Your task to perform on an android device: Go to Amazon Image 0: 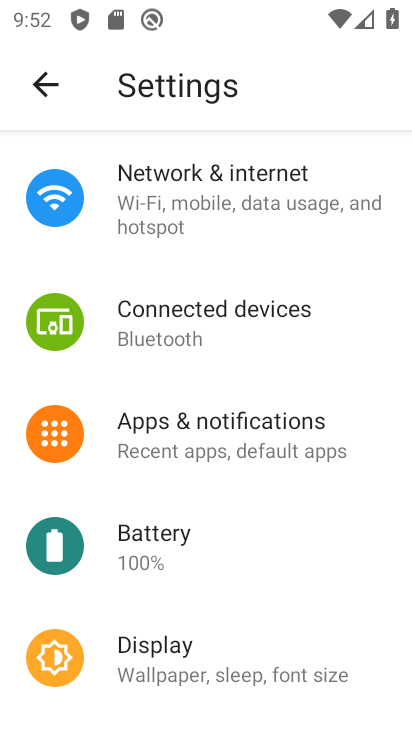
Step 0: press home button
Your task to perform on an android device: Go to Amazon Image 1: 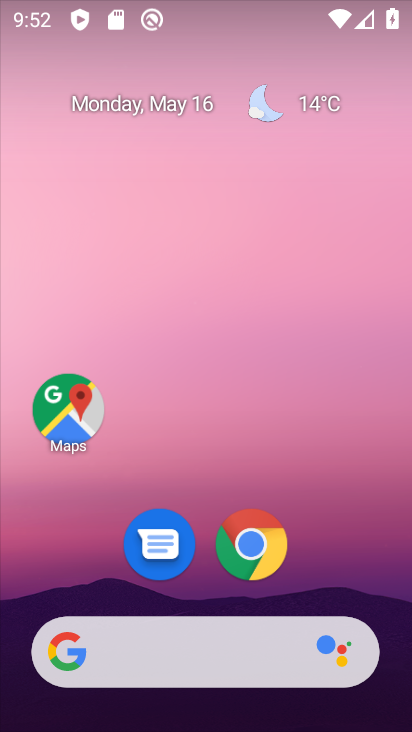
Step 1: click (271, 554)
Your task to perform on an android device: Go to Amazon Image 2: 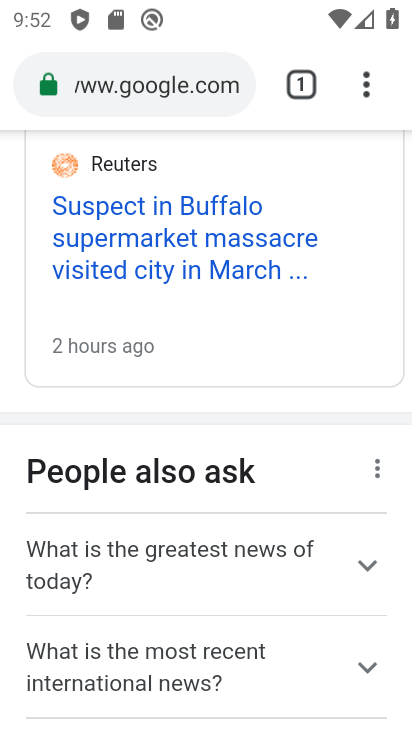
Step 2: click (186, 87)
Your task to perform on an android device: Go to Amazon Image 3: 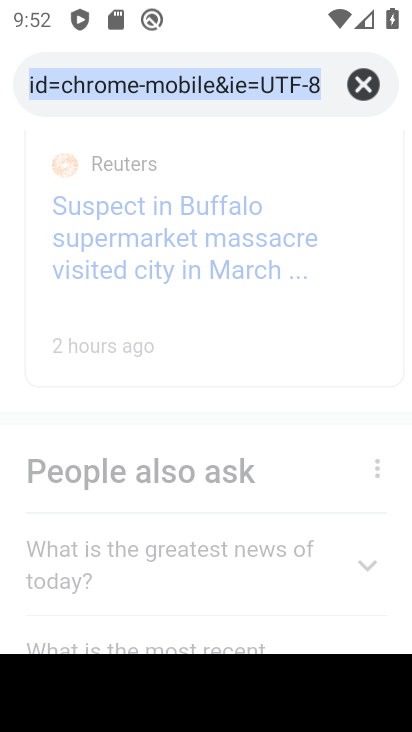
Step 3: type "Amazon"
Your task to perform on an android device: Go to Amazon Image 4: 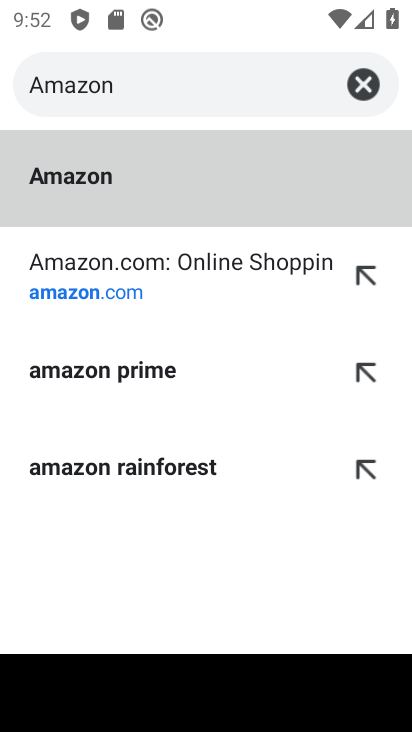
Step 4: click (70, 262)
Your task to perform on an android device: Go to Amazon Image 5: 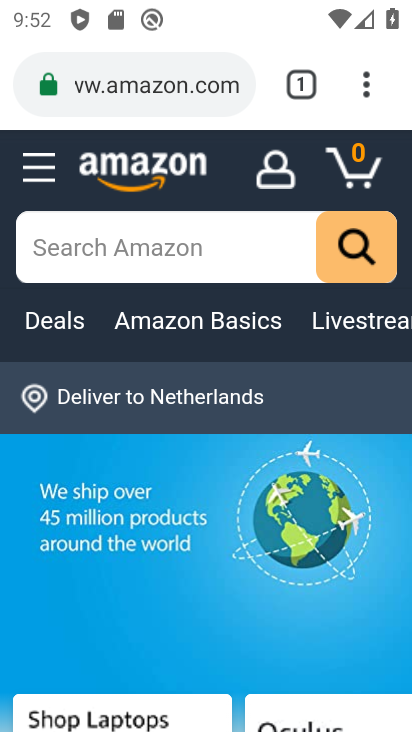
Step 5: task complete